Your task to perform on an android device: Go to Yahoo.com Image 0: 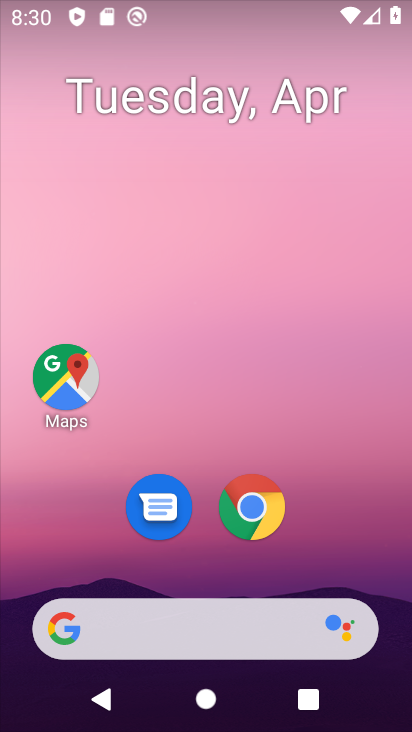
Step 0: click (187, 616)
Your task to perform on an android device: Go to Yahoo.com Image 1: 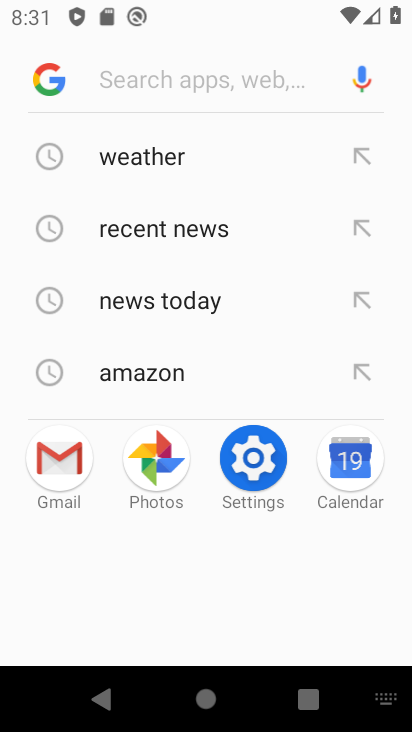
Step 1: type "Yahoo.com"
Your task to perform on an android device: Go to Yahoo.com Image 2: 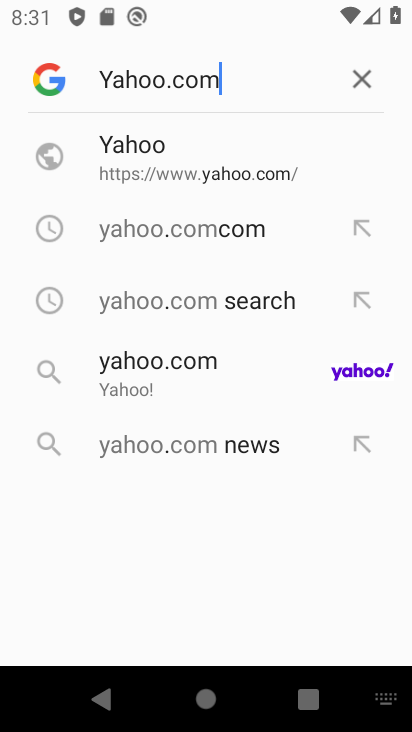
Step 2: click (192, 360)
Your task to perform on an android device: Go to Yahoo.com Image 3: 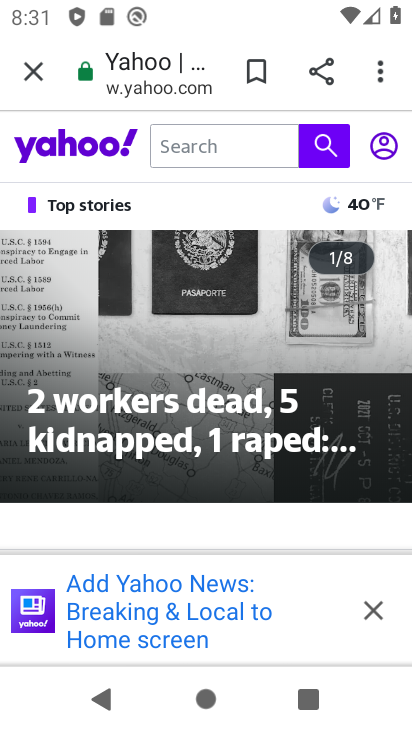
Step 3: task complete